Your task to perform on an android device: toggle translation in the chrome app Image 0: 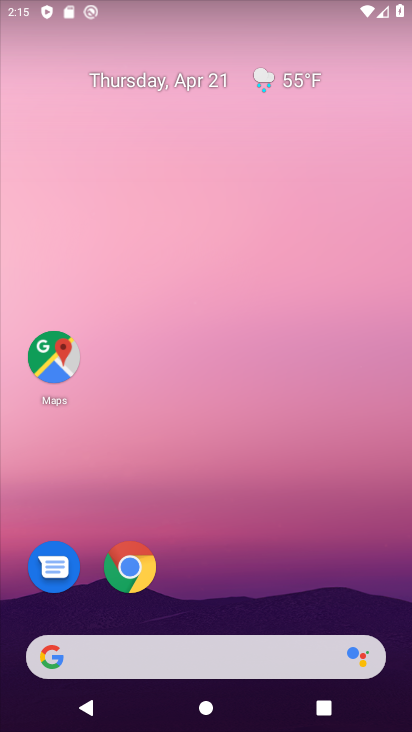
Step 0: drag from (271, 611) to (279, 105)
Your task to perform on an android device: toggle translation in the chrome app Image 1: 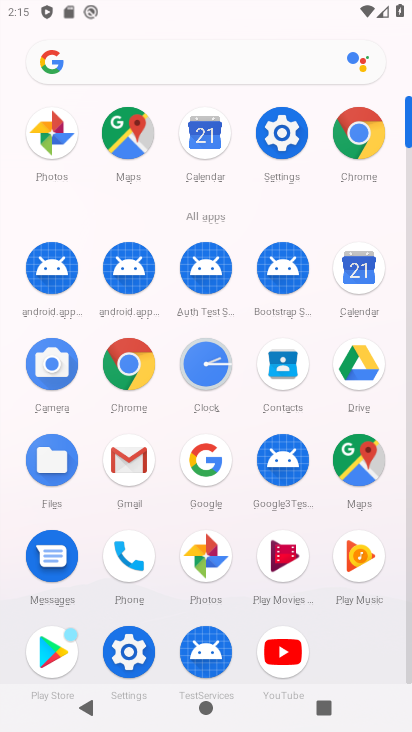
Step 1: click (124, 358)
Your task to perform on an android device: toggle translation in the chrome app Image 2: 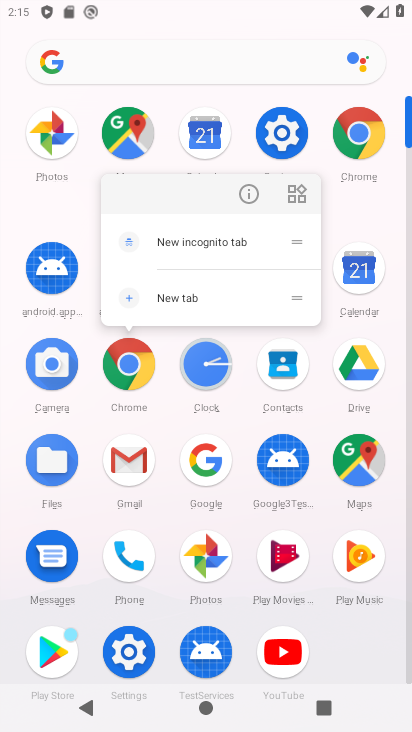
Step 2: click (135, 371)
Your task to perform on an android device: toggle translation in the chrome app Image 3: 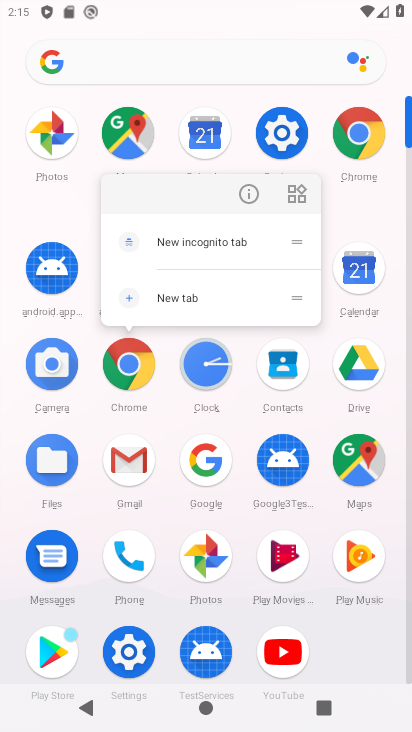
Step 3: click (124, 346)
Your task to perform on an android device: toggle translation in the chrome app Image 4: 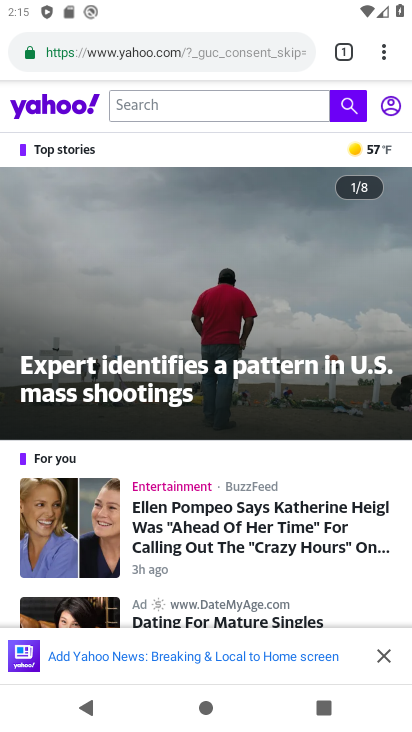
Step 4: drag from (386, 48) to (191, 598)
Your task to perform on an android device: toggle translation in the chrome app Image 5: 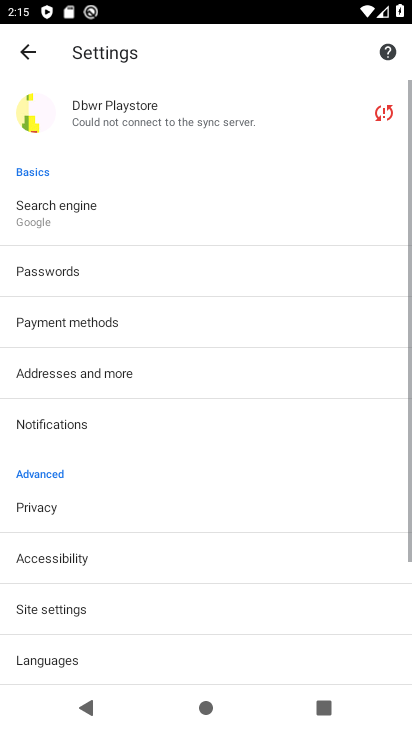
Step 5: drag from (254, 602) to (268, 228)
Your task to perform on an android device: toggle translation in the chrome app Image 6: 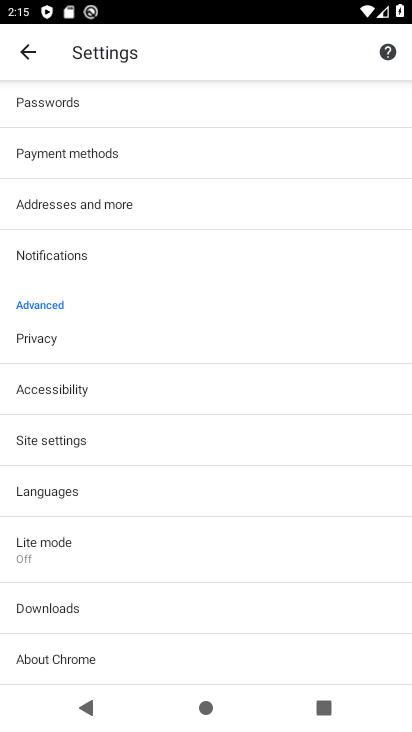
Step 6: click (50, 486)
Your task to perform on an android device: toggle translation in the chrome app Image 7: 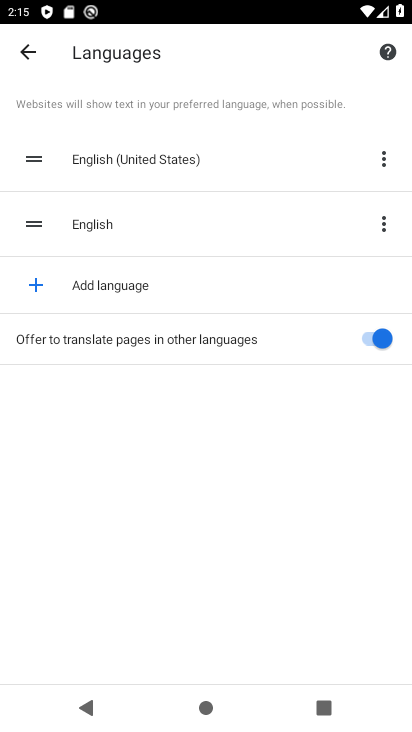
Step 7: click (368, 339)
Your task to perform on an android device: toggle translation in the chrome app Image 8: 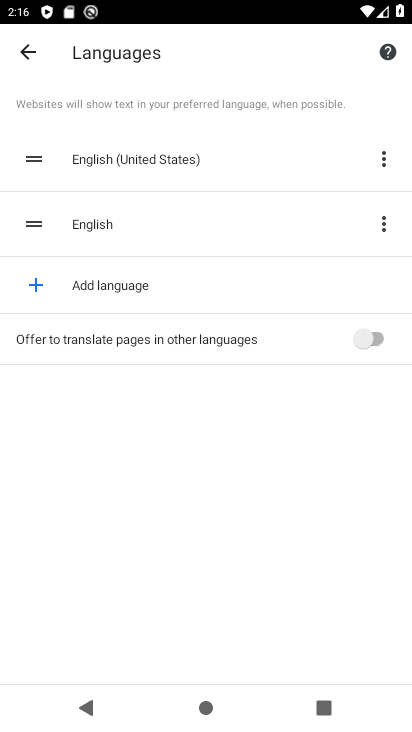
Step 8: task complete